Your task to perform on an android device: open app "Messages" (install if not already installed), go to login, and select forgot password Image 0: 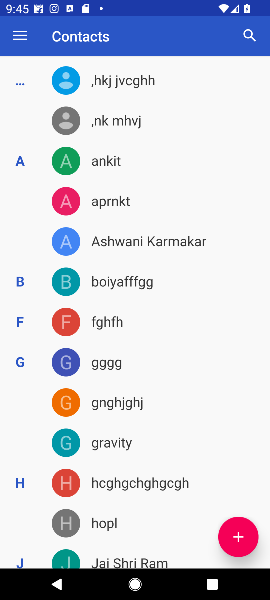
Step 0: press home button
Your task to perform on an android device: open app "Messages" (install if not already installed), go to login, and select forgot password Image 1: 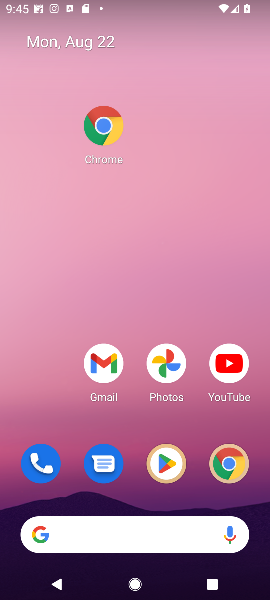
Step 1: click (159, 465)
Your task to perform on an android device: open app "Messages" (install if not already installed), go to login, and select forgot password Image 2: 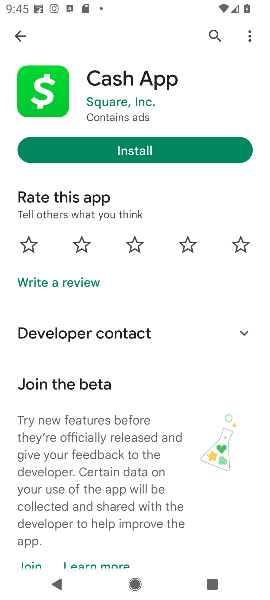
Step 2: click (22, 32)
Your task to perform on an android device: open app "Messages" (install if not already installed), go to login, and select forgot password Image 3: 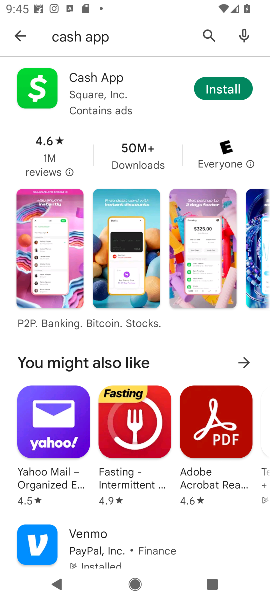
Step 3: click (21, 33)
Your task to perform on an android device: open app "Messages" (install if not already installed), go to login, and select forgot password Image 4: 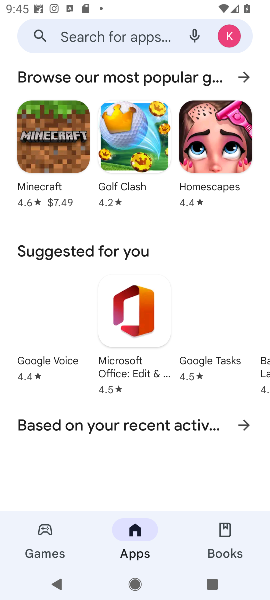
Step 4: click (99, 28)
Your task to perform on an android device: open app "Messages" (install if not already installed), go to login, and select forgot password Image 5: 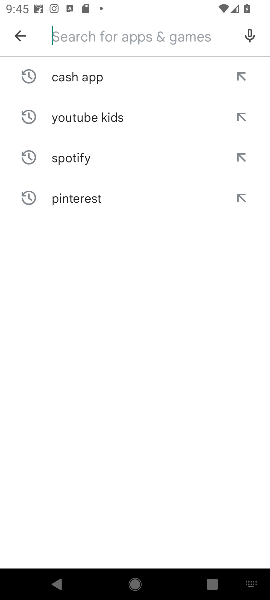
Step 5: type "Messages"
Your task to perform on an android device: open app "Messages" (install if not already installed), go to login, and select forgot password Image 6: 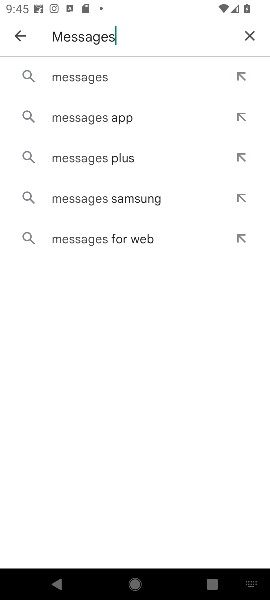
Step 6: click (78, 77)
Your task to perform on an android device: open app "Messages" (install if not already installed), go to login, and select forgot password Image 7: 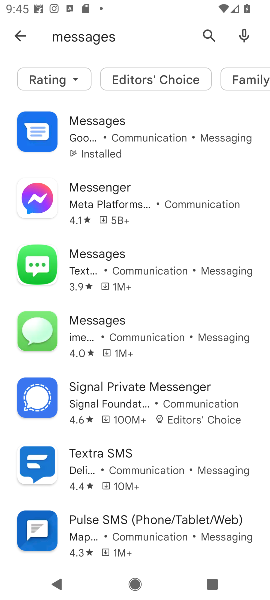
Step 7: click (104, 139)
Your task to perform on an android device: open app "Messages" (install if not already installed), go to login, and select forgot password Image 8: 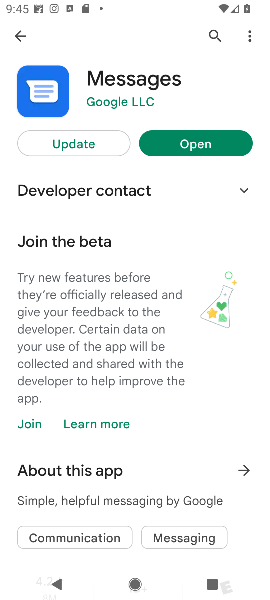
Step 8: click (182, 139)
Your task to perform on an android device: open app "Messages" (install if not already installed), go to login, and select forgot password Image 9: 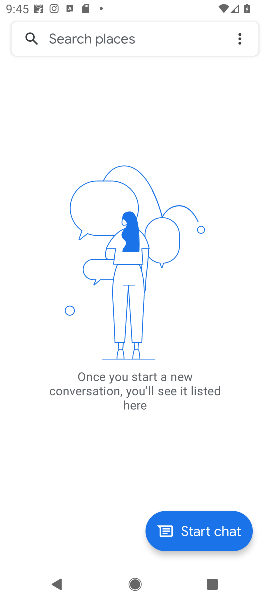
Step 9: task complete